Your task to perform on an android device: add a label to a message in the gmail app Image 0: 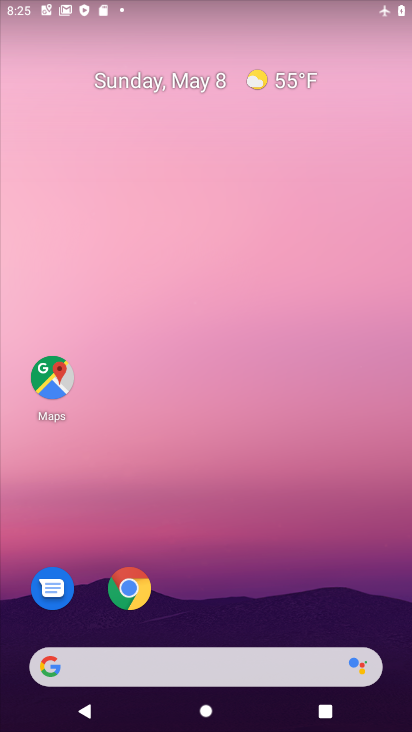
Step 0: click (301, 92)
Your task to perform on an android device: add a label to a message in the gmail app Image 1: 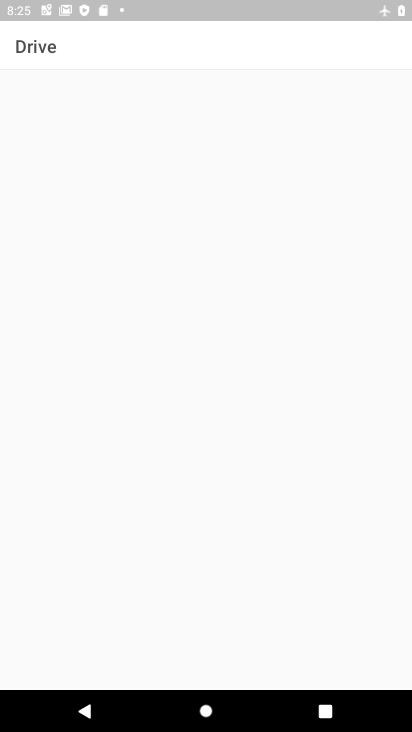
Step 1: press home button
Your task to perform on an android device: add a label to a message in the gmail app Image 2: 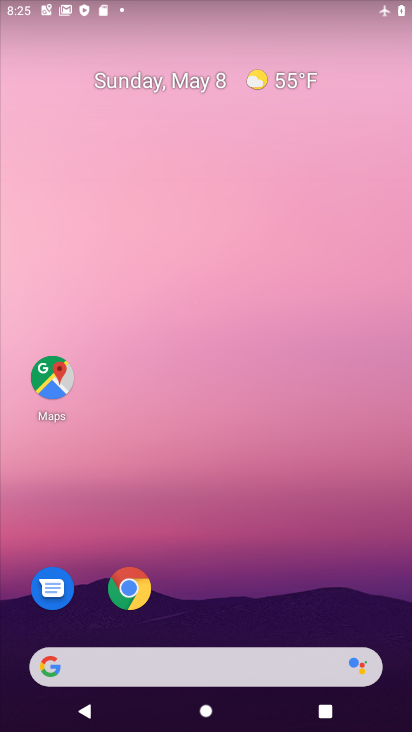
Step 2: drag from (319, 603) to (294, 45)
Your task to perform on an android device: add a label to a message in the gmail app Image 3: 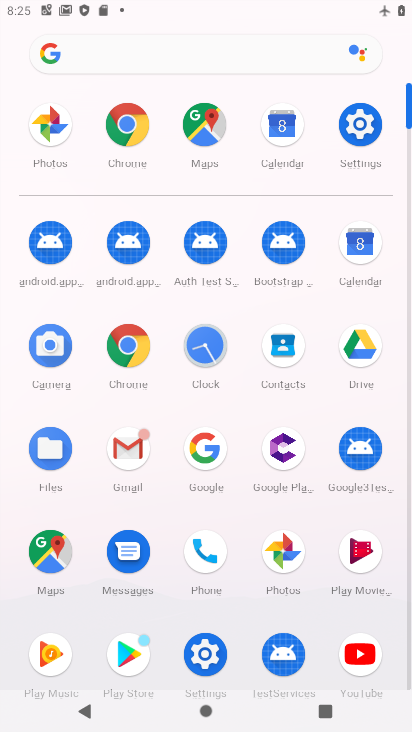
Step 3: click (132, 454)
Your task to perform on an android device: add a label to a message in the gmail app Image 4: 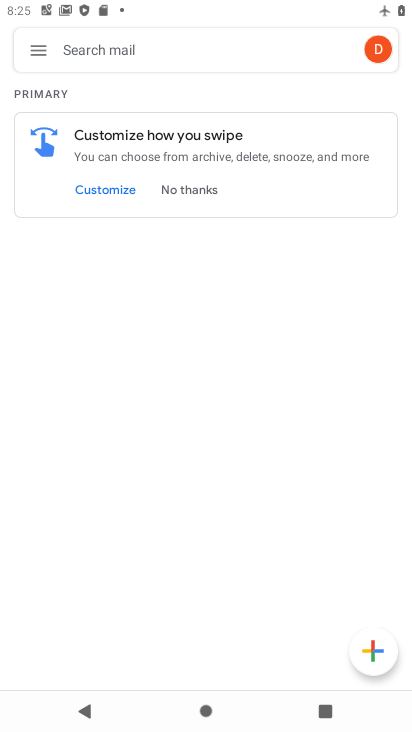
Step 4: task complete